Your task to perform on an android device: Open maps Image 0: 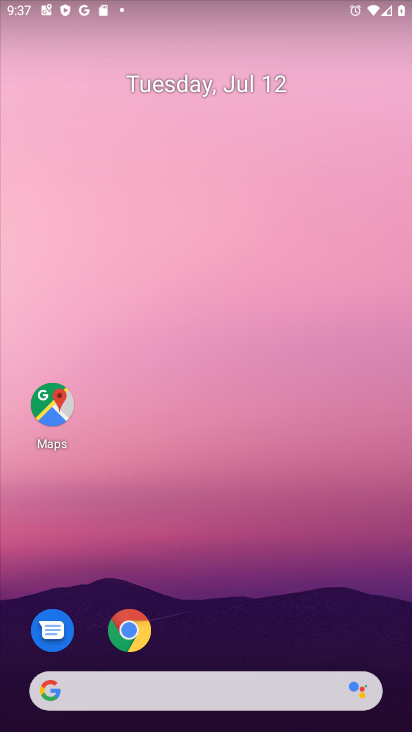
Step 0: drag from (231, 623) to (229, 174)
Your task to perform on an android device: Open maps Image 1: 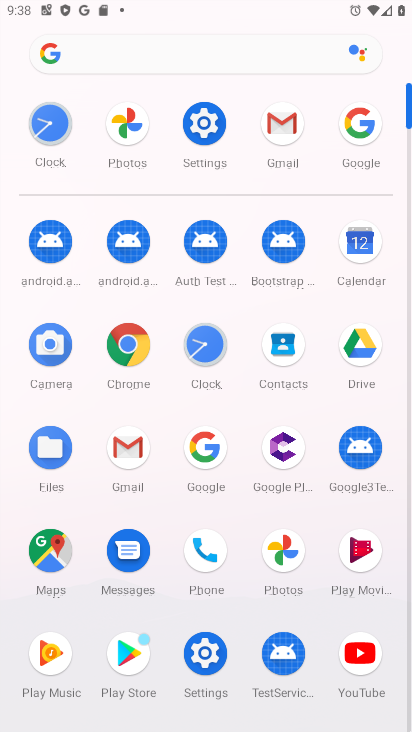
Step 1: click (48, 552)
Your task to perform on an android device: Open maps Image 2: 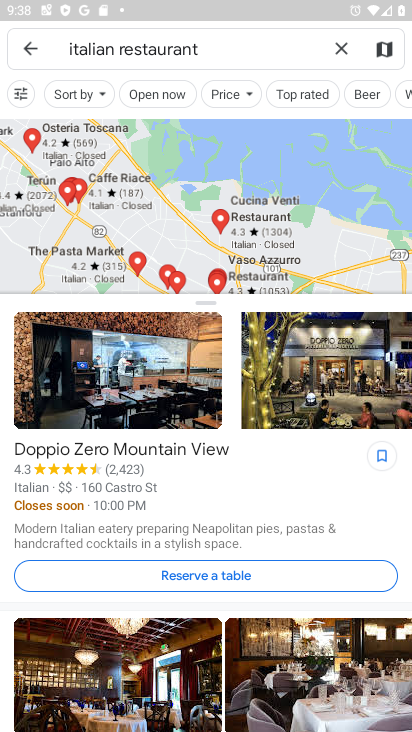
Step 2: task complete